Your task to perform on an android device: uninstall "Google Home" Image 0: 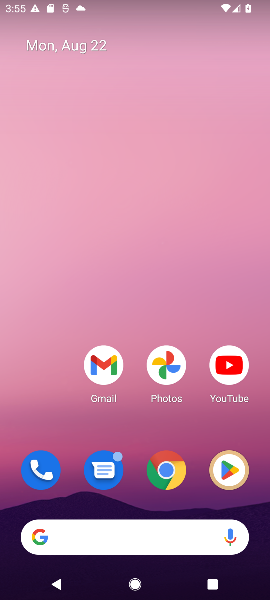
Step 0: drag from (143, 494) to (141, 150)
Your task to perform on an android device: uninstall "Google Home" Image 1: 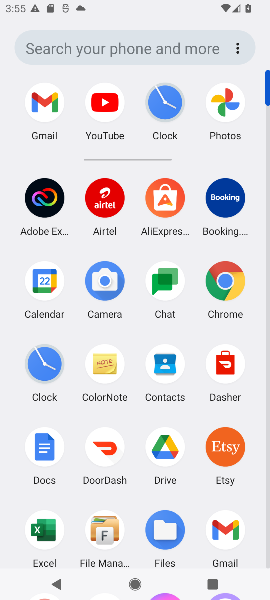
Step 1: drag from (134, 485) to (138, 563)
Your task to perform on an android device: uninstall "Google Home" Image 2: 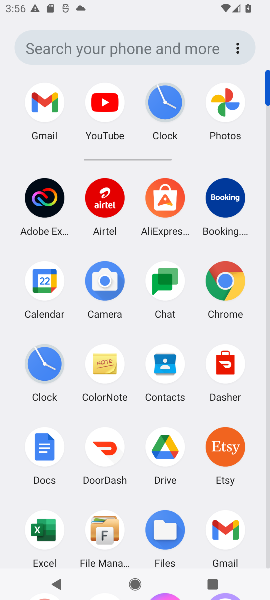
Step 2: drag from (127, 538) to (148, 85)
Your task to perform on an android device: uninstall "Google Home" Image 3: 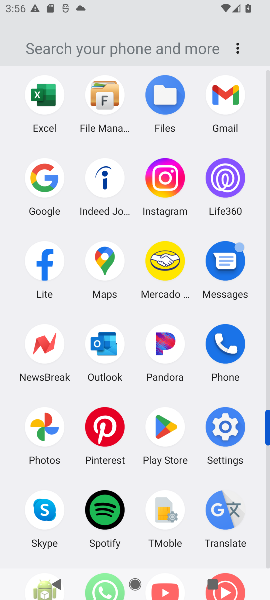
Step 3: click (165, 418)
Your task to perform on an android device: uninstall "Google Home" Image 4: 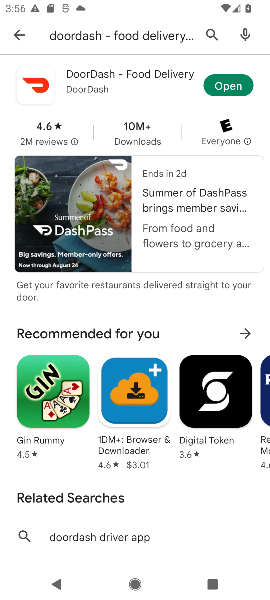
Step 4: click (20, 30)
Your task to perform on an android device: uninstall "Google Home" Image 5: 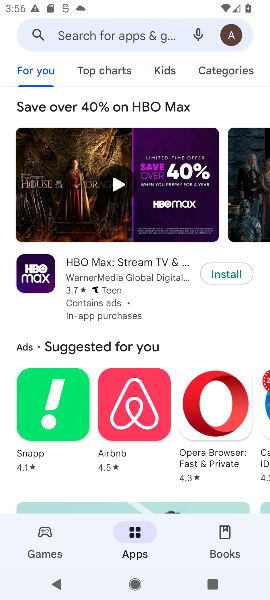
Step 5: click (106, 27)
Your task to perform on an android device: uninstall "Google Home" Image 6: 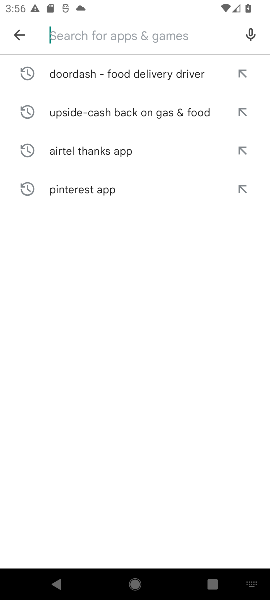
Step 6: type "Google Home "
Your task to perform on an android device: uninstall "Google Home" Image 7: 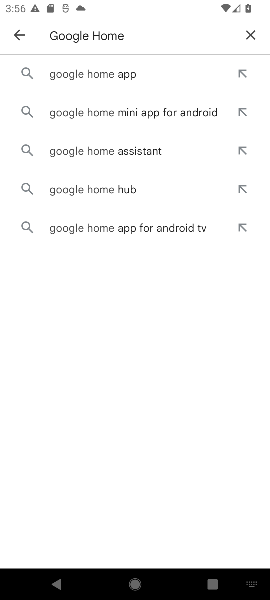
Step 7: click (106, 76)
Your task to perform on an android device: uninstall "Google Home" Image 8: 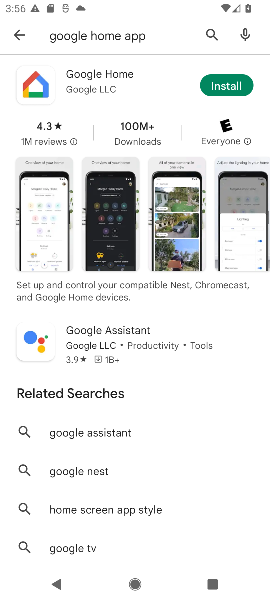
Step 8: click (74, 80)
Your task to perform on an android device: uninstall "Google Home" Image 9: 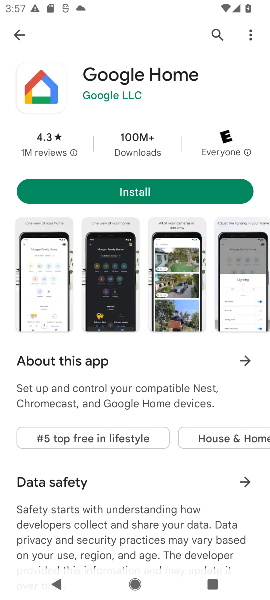
Step 9: task complete